Your task to perform on an android device: What's the news about the US dollar? Image 0: 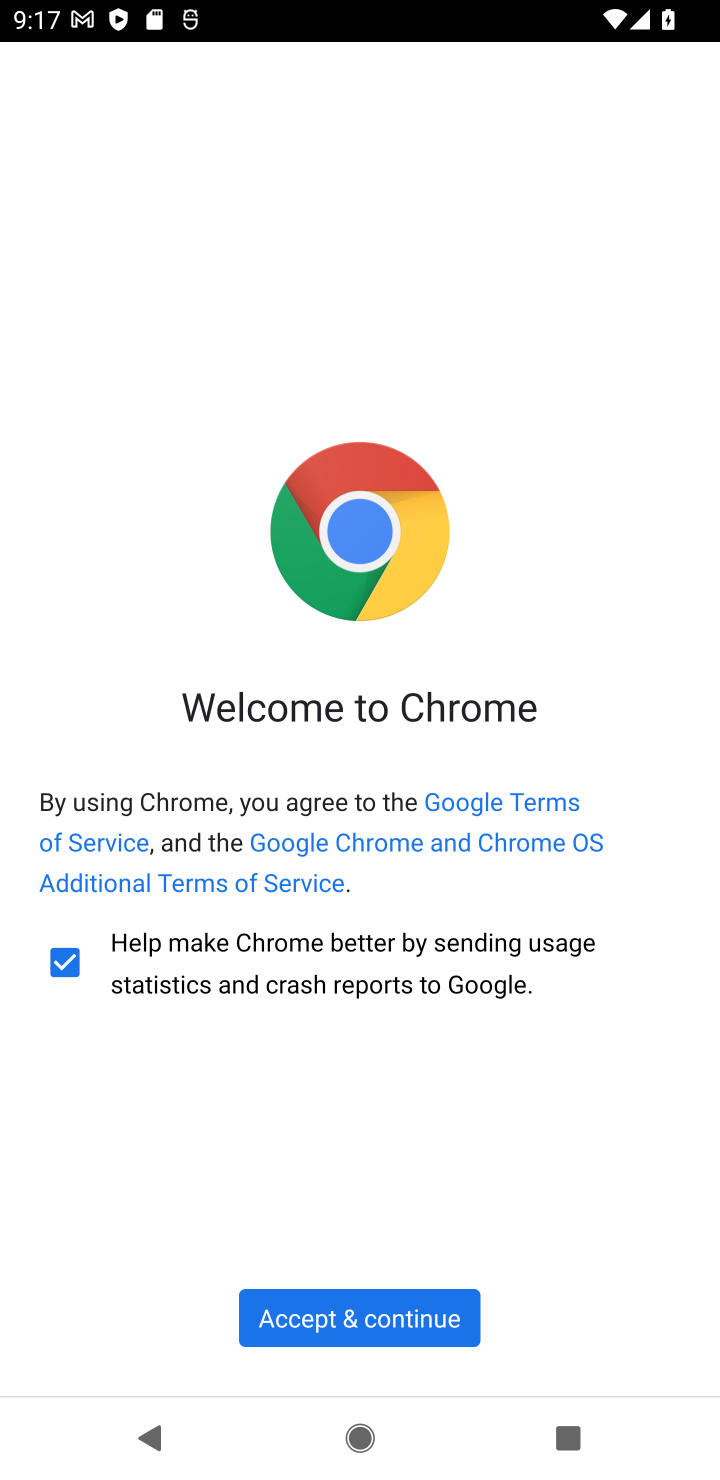
Step 0: press home button
Your task to perform on an android device: What's the news about the US dollar? Image 1: 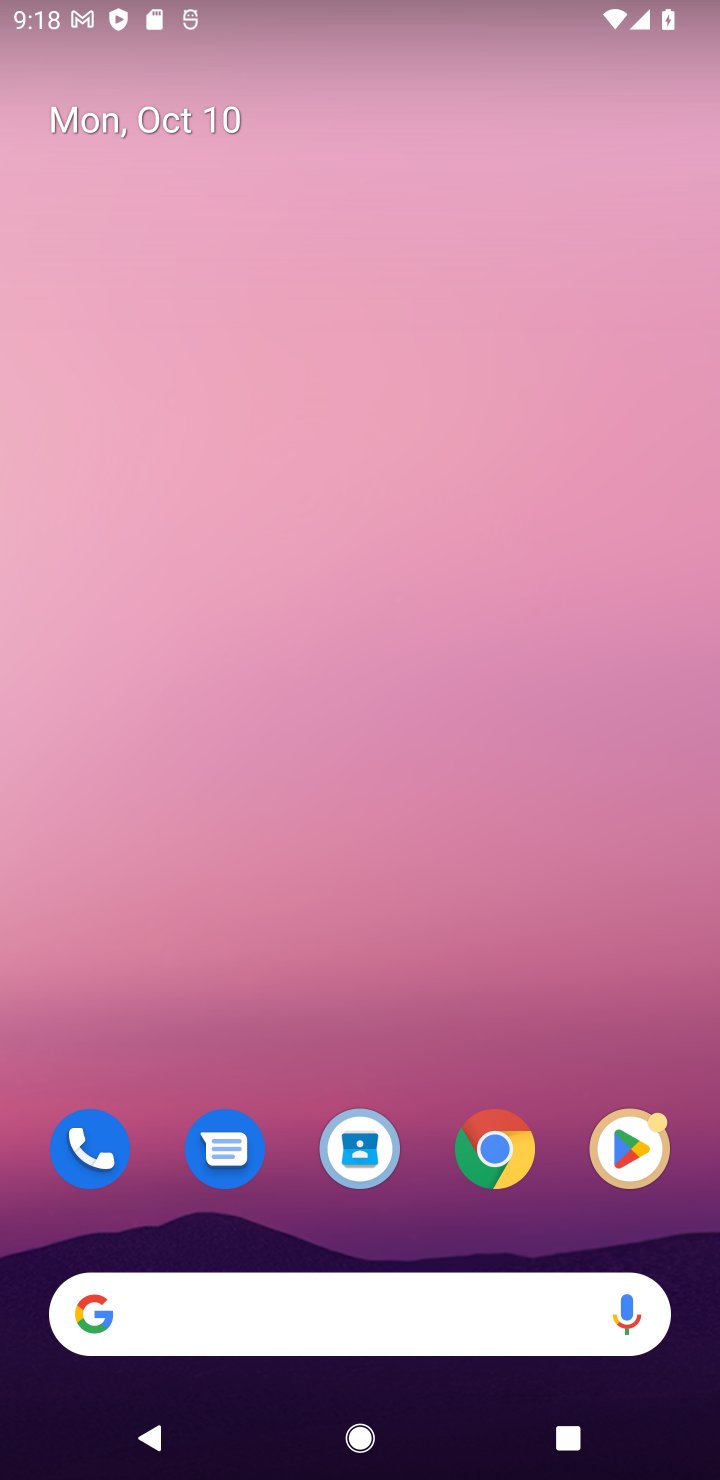
Step 1: click (261, 1319)
Your task to perform on an android device: What's the news about the US dollar? Image 2: 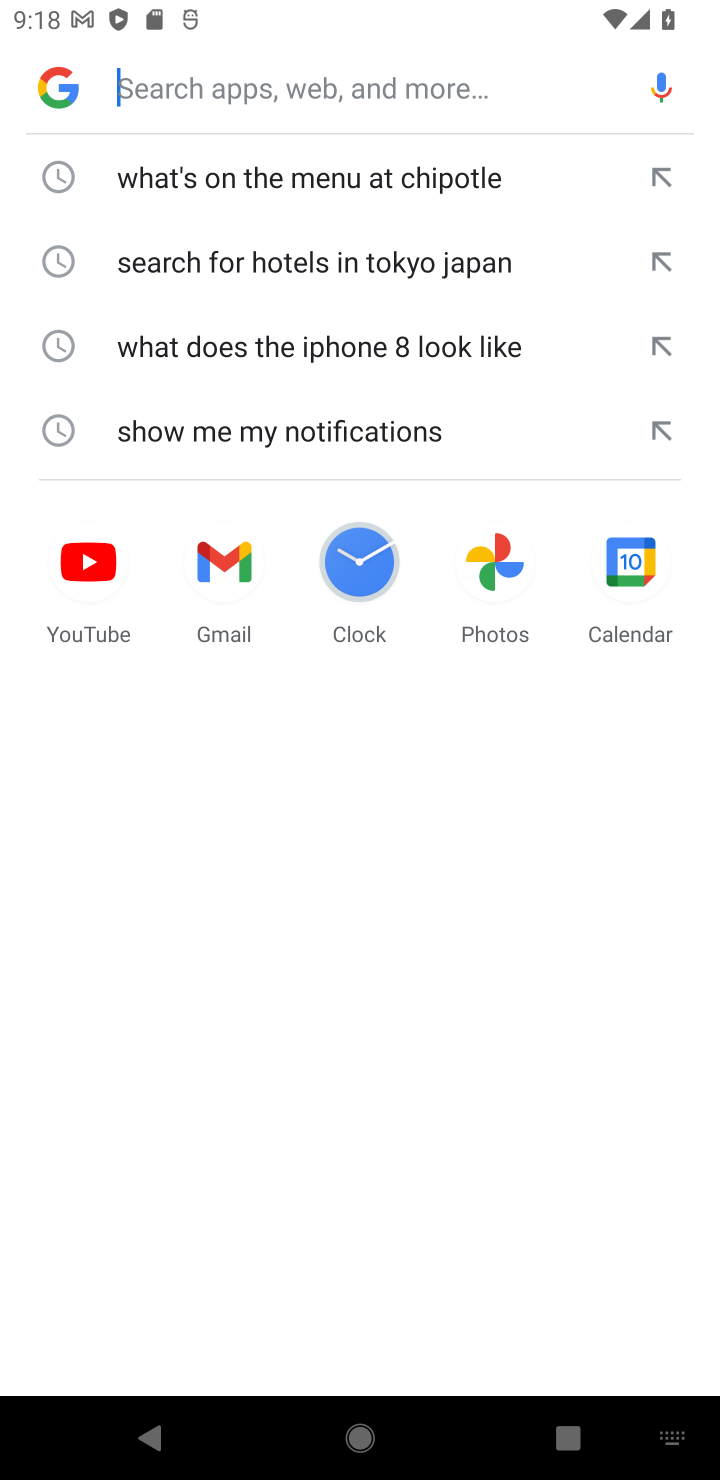
Step 2: type "What's the news about the US dollar?"
Your task to perform on an android device: What's the news about the US dollar? Image 3: 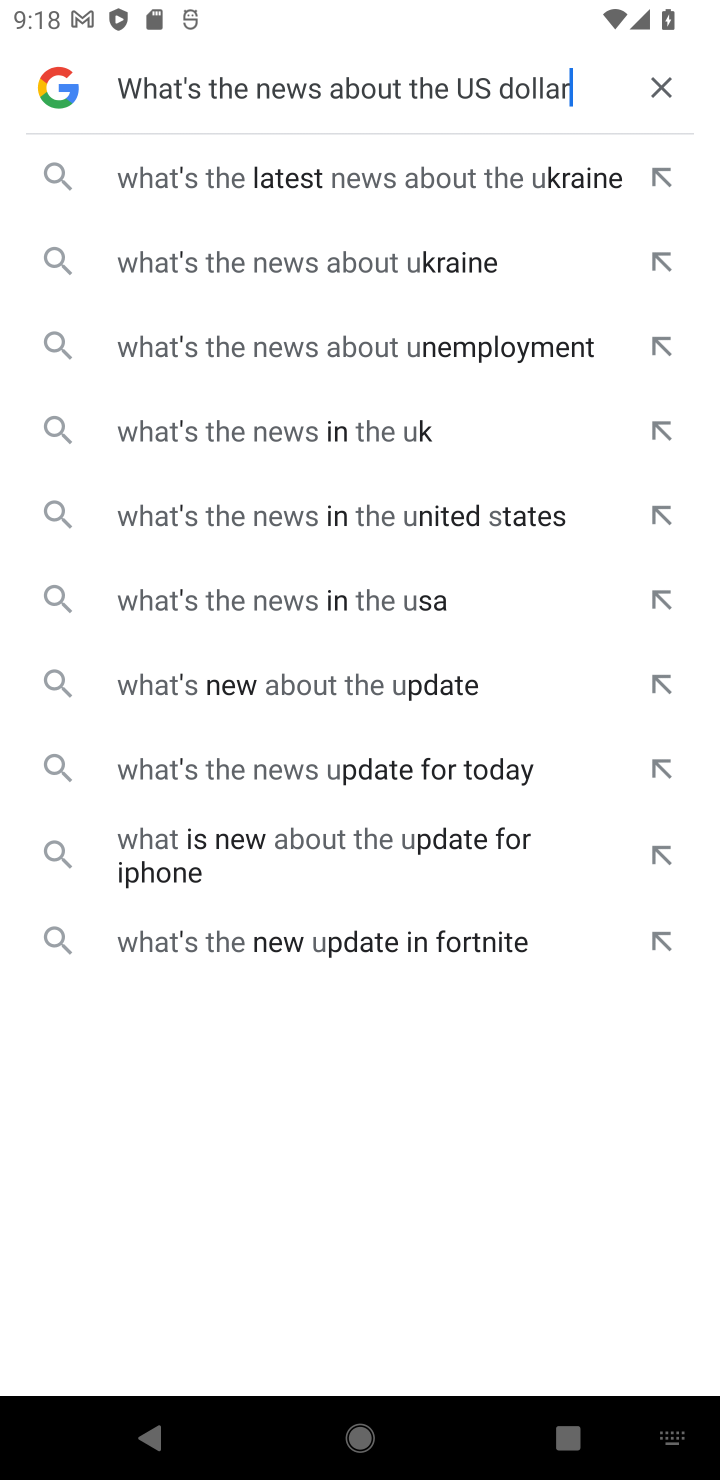
Step 3: task complete